Your task to perform on an android device: Set the phone to "Do not disturb". Image 0: 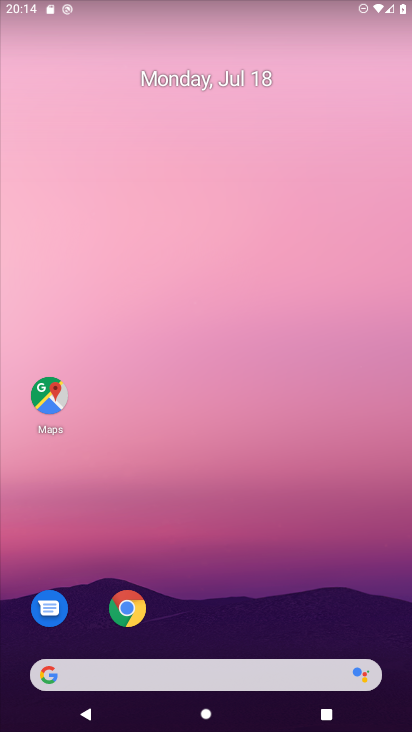
Step 0: drag from (203, 633) to (249, 55)
Your task to perform on an android device: Set the phone to "Do not disturb". Image 1: 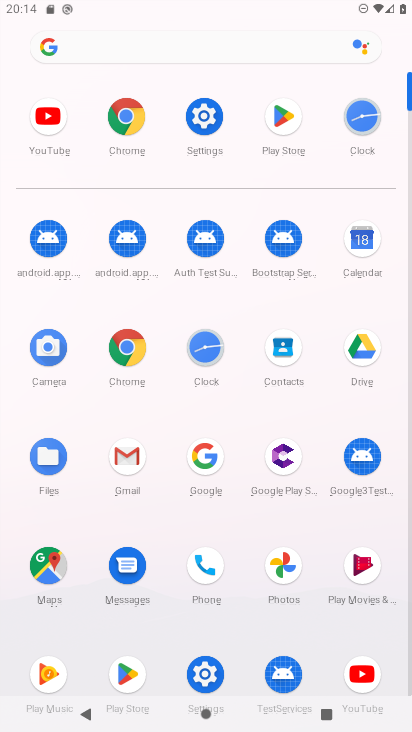
Step 1: click (202, 119)
Your task to perform on an android device: Set the phone to "Do not disturb". Image 2: 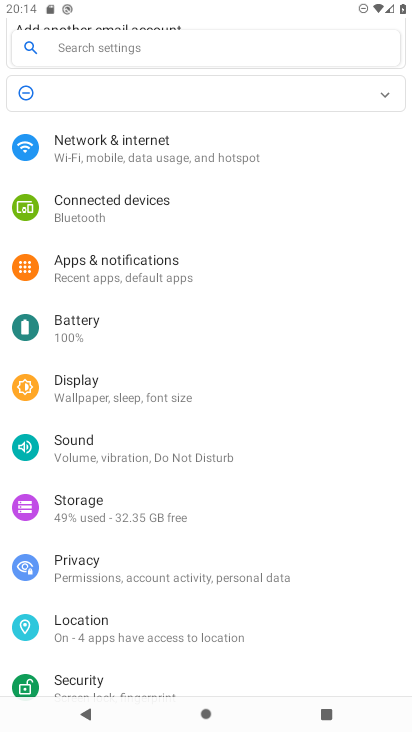
Step 2: click (171, 449)
Your task to perform on an android device: Set the phone to "Do not disturb". Image 3: 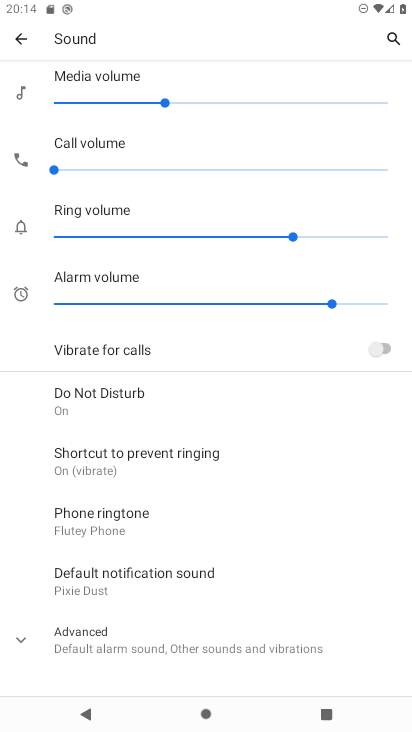
Step 3: drag from (173, 593) to (180, 141)
Your task to perform on an android device: Set the phone to "Do not disturb". Image 4: 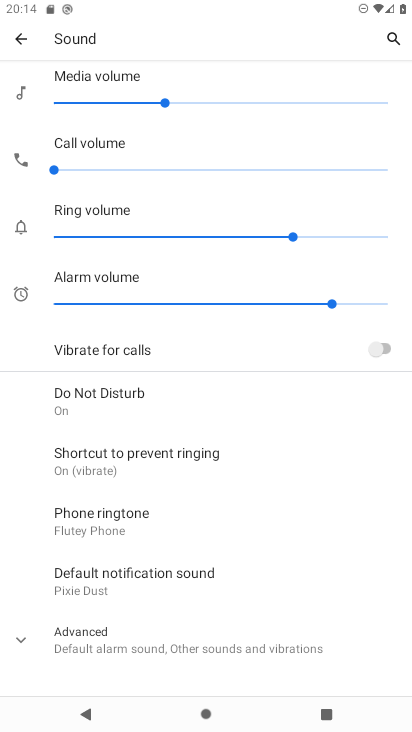
Step 4: click (90, 398)
Your task to perform on an android device: Set the phone to "Do not disturb". Image 5: 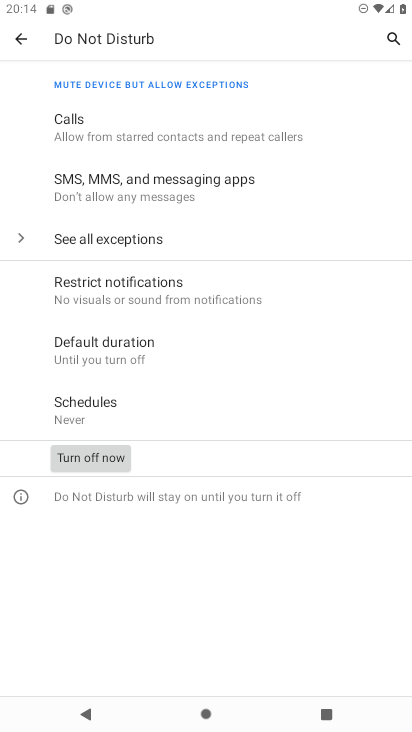
Step 5: task complete